Your task to perform on an android device: delete the emails in spam in the gmail app Image 0: 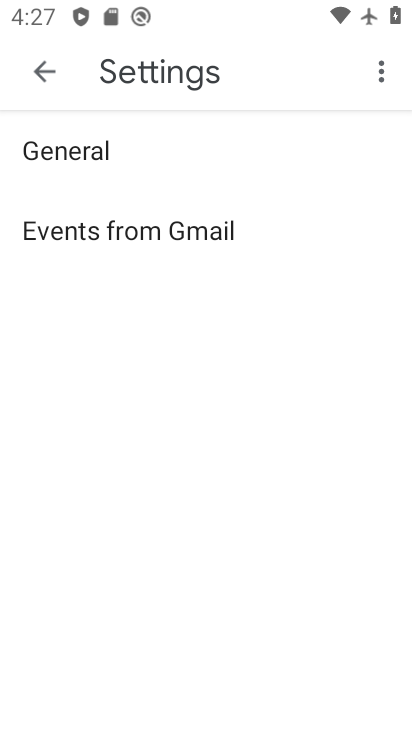
Step 0: press home button
Your task to perform on an android device: delete the emails in spam in the gmail app Image 1: 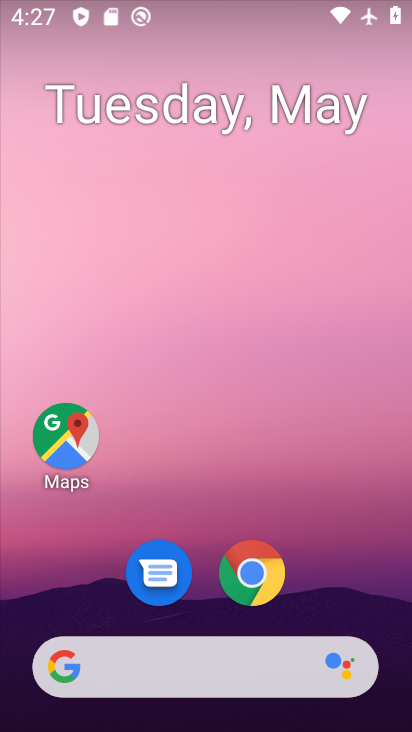
Step 1: drag from (333, 481) to (272, 140)
Your task to perform on an android device: delete the emails in spam in the gmail app Image 2: 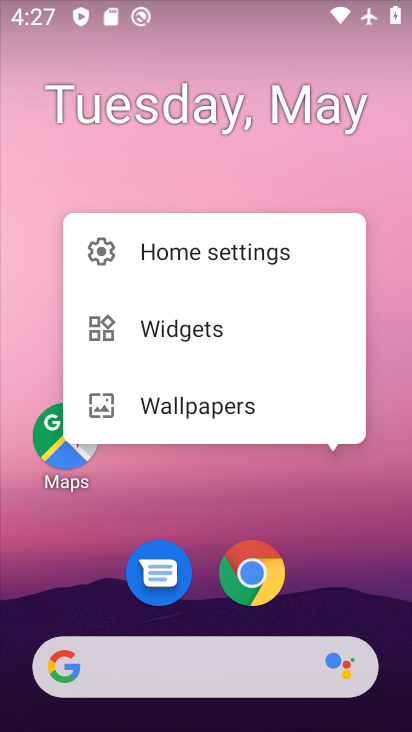
Step 2: click (356, 528)
Your task to perform on an android device: delete the emails in spam in the gmail app Image 3: 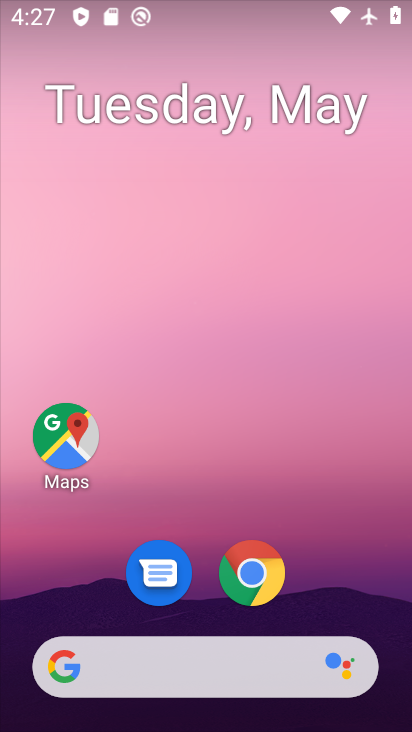
Step 3: drag from (295, 528) to (259, 92)
Your task to perform on an android device: delete the emails in spam in the gmail app Image 4: 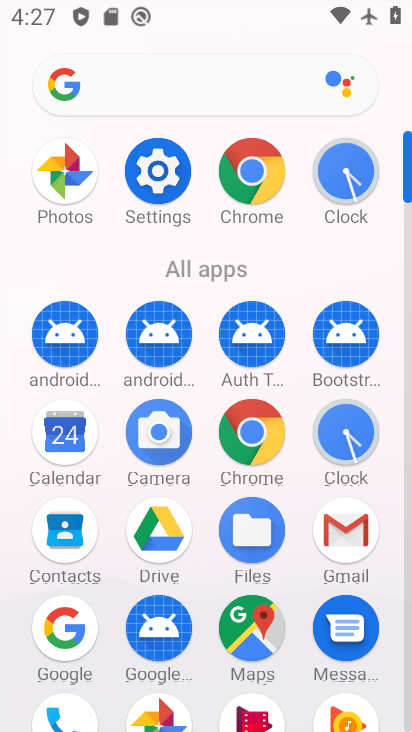
Step 4: click (342, 537)
Your task to perform on an android device: delete the emails in spam in the gmail app Image 5: 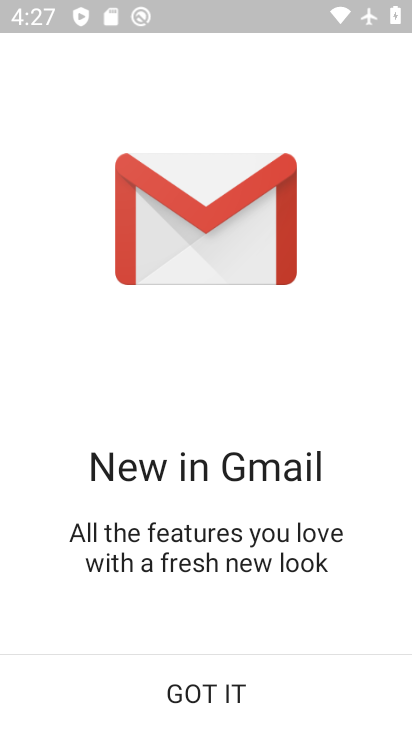
Step 5: click (221, 686)
Your task to perform on an android device: delete the emails in spam in the gmail app Image 6: 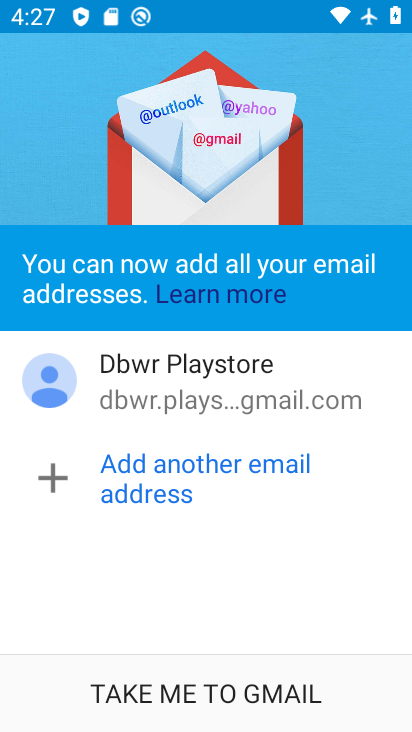
Step 6: click (231, 701)
Your task to perform on an android device: delete the emails in spam in the gmail app Image 7: 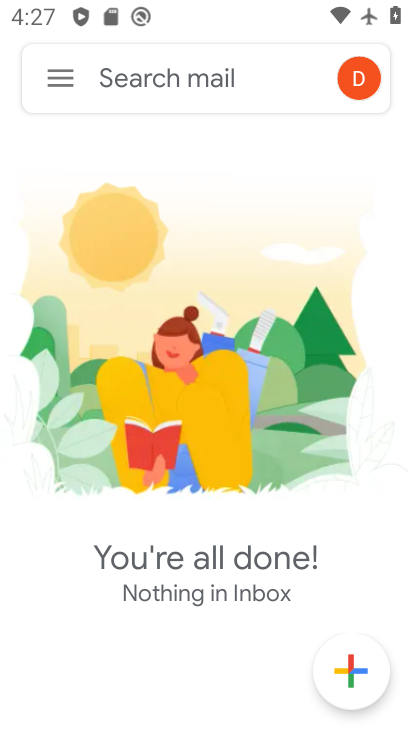
Step 7: click (47, 73)
Your task to perform on an android device: delete the emails in spam in the gmail app Image 8: 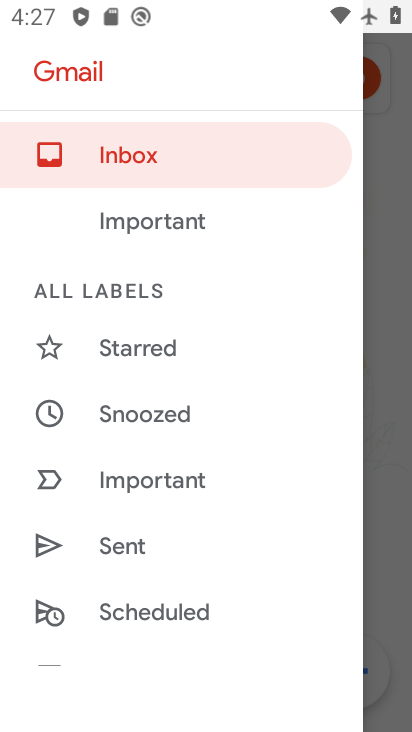
Step 8: drag from (163, 576) to (157, 297)
Your task to perform on an android device: delete the emails in spam in the gmail app Image 9: 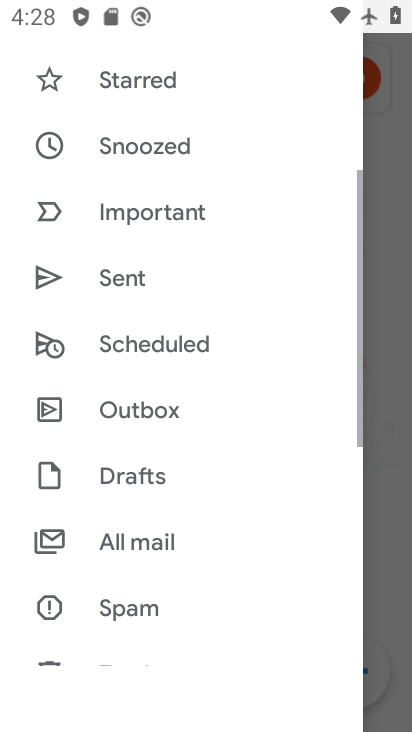
Step 9: click (123, 604)
Your task to perform on an android device: delete the emails in spam in the gmail app Image 10: 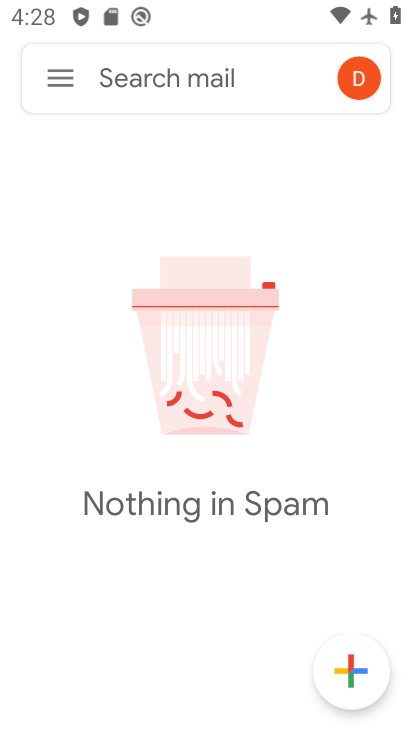
Step 10: task complete